Your task to perform on an android device: find which apps use the phone's location Image 0: 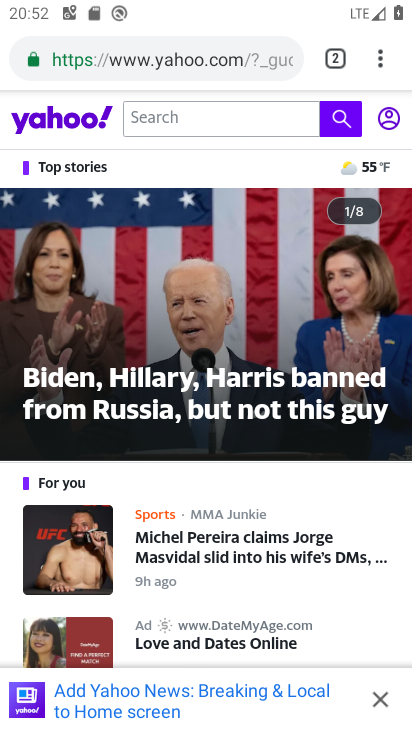
Step 0: press home button
Your task to perform on an android device: find which apps use the phone's location Image 1: 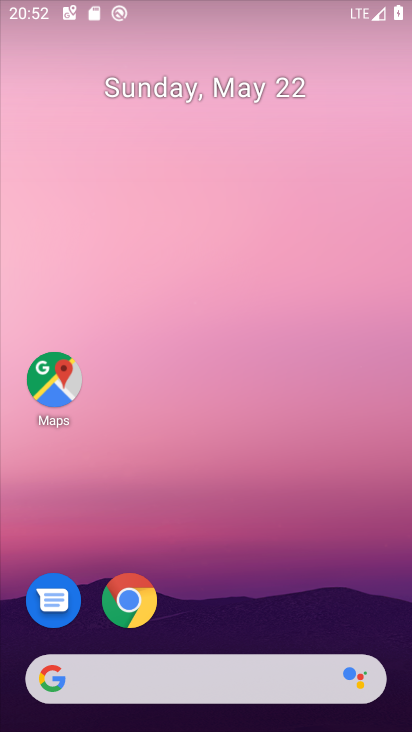
Step 1: drag from (176, 647) to (212, 341)
Your task to perform on an android device: find which apps use the phone's location Image 2: 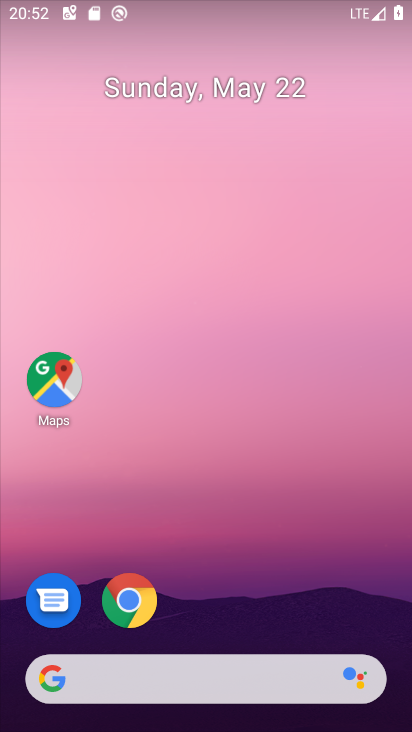
Step 2: drag from (186, 633) to (198, 251)
Your task to perform on an android device: find which apps use the phone's location Image 3: 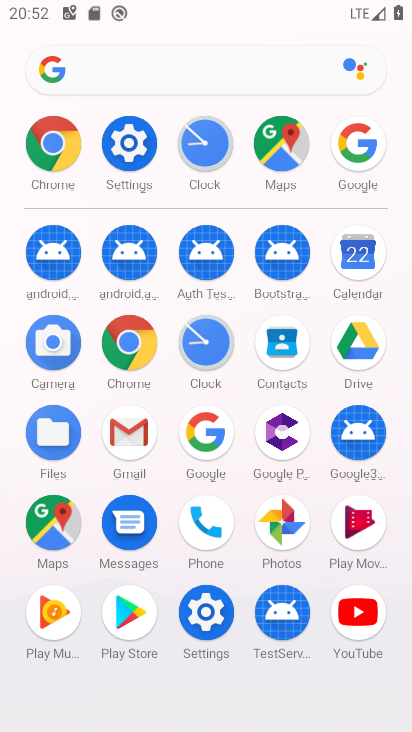
Step 3: click (130, 134)
Your task to perform on an android device: find which apps use the phone's location Image 4: 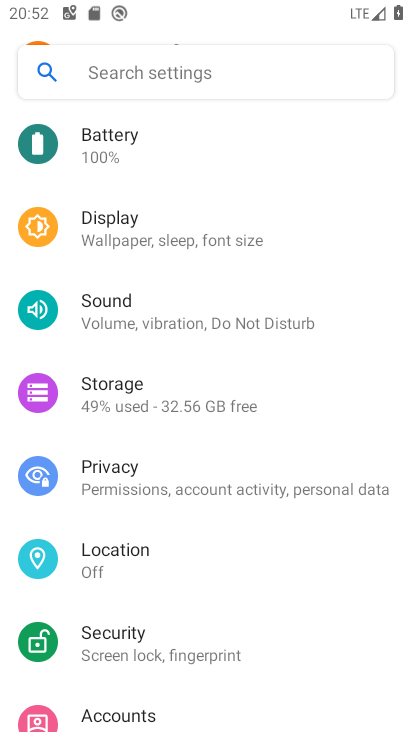
Step 4: click (129, 568)
Your task to perform on an android device: find which apps use the phone's location Image 5: 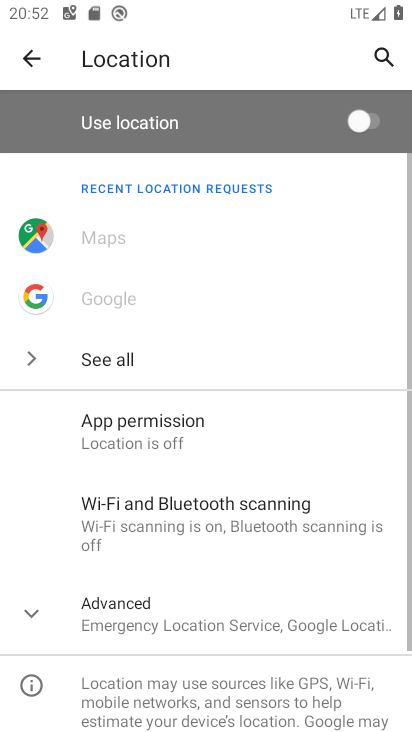
Step 5: click (132, 441)
Your task to perform on an android device: find which apps use the phone's location Image 6: 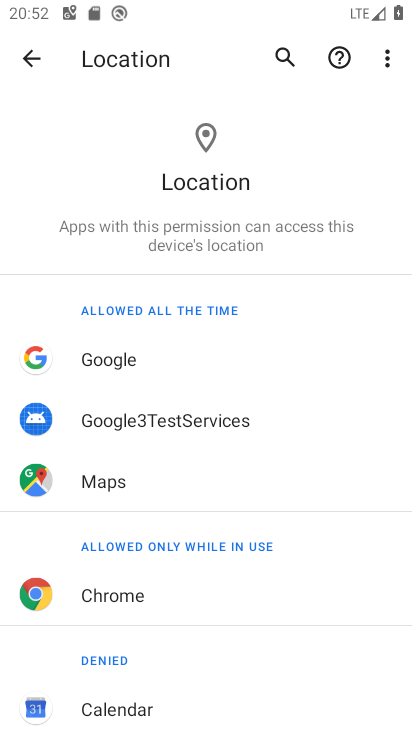
Step 6: task complete